Your task to perform on an android device: See recent photos Image 0: 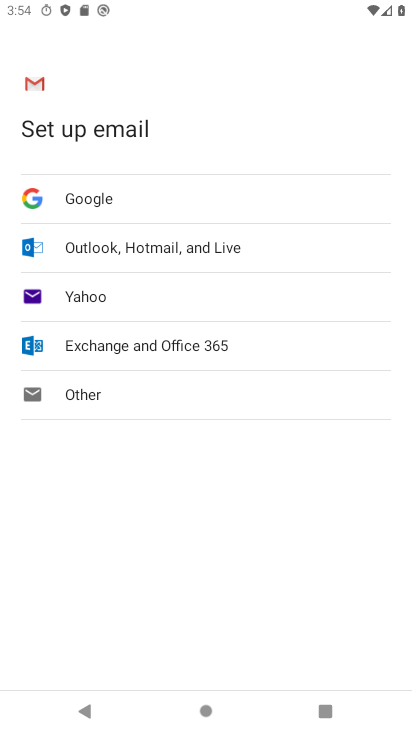
Step 0: press home button
Your task to perform on an android device: See recent photos Image 1: 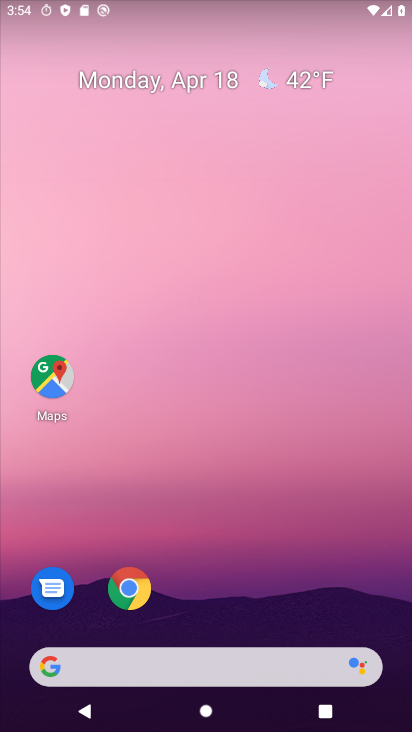
Step 1: drag from (222, 495) to (108, 35)
Your task to perform on an android device: See recent photos Image 2: 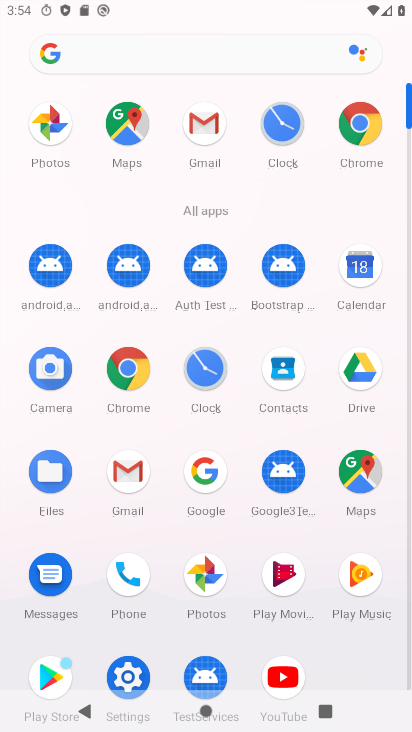
Step 2: click (49, 142)
Your task to perform on an android device: See recent photos Image 3: 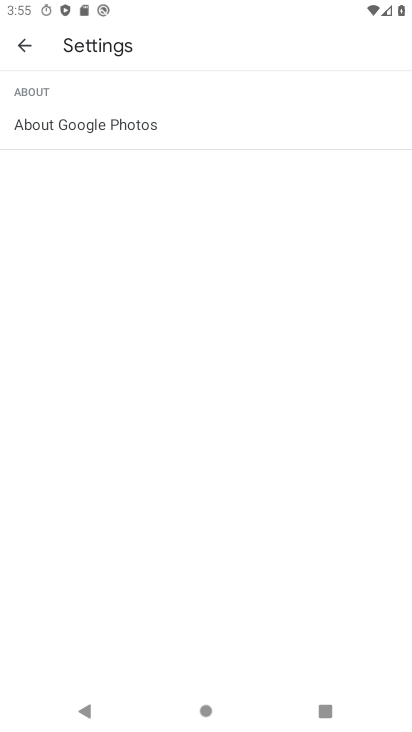
Step 3: click (17, 47)
Your task to perform on an android device: See recent photos Image 4: 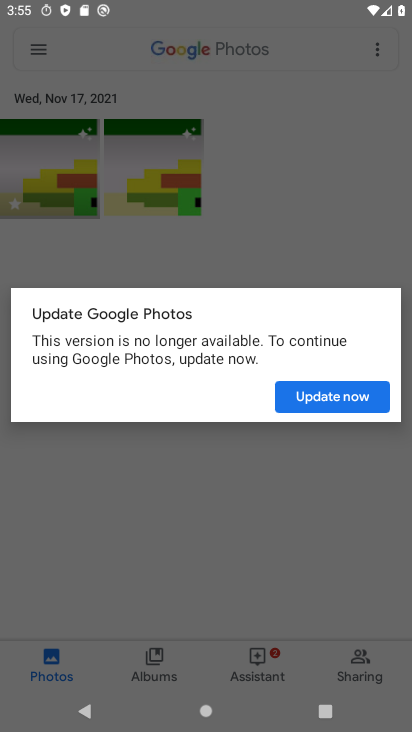
Step 4: click (342, 402)
Your task to perform on an android device: See recent photos Image 5: 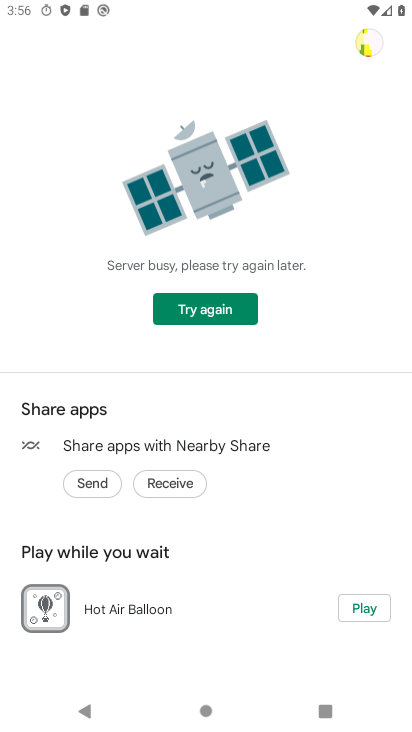
Step 5: task complete